Your task to perform on an android device: Go to Maps Image 0: 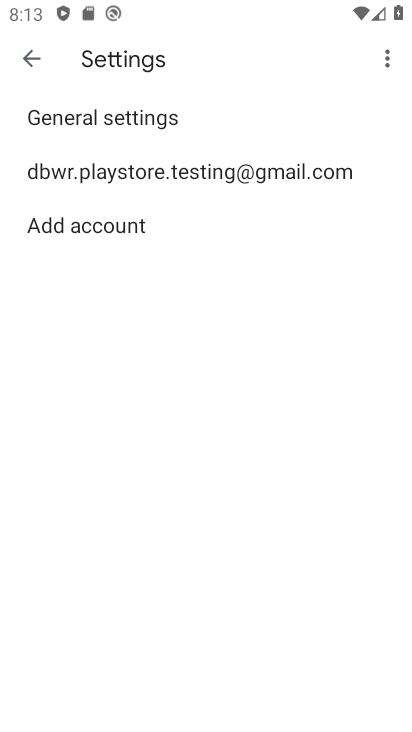
Step 0: press home button
Your task to perform on an android device: Go to Maps Image 1: 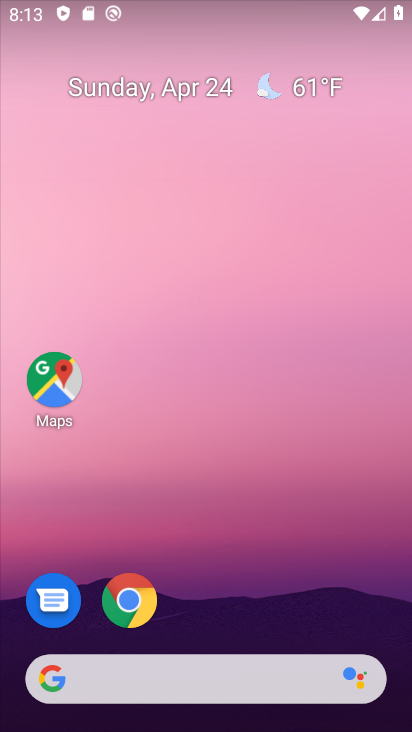
Step 1: drag from (200, 699) to (205, 291)
Your task to perform on an android device: Go to Maps Image 2: 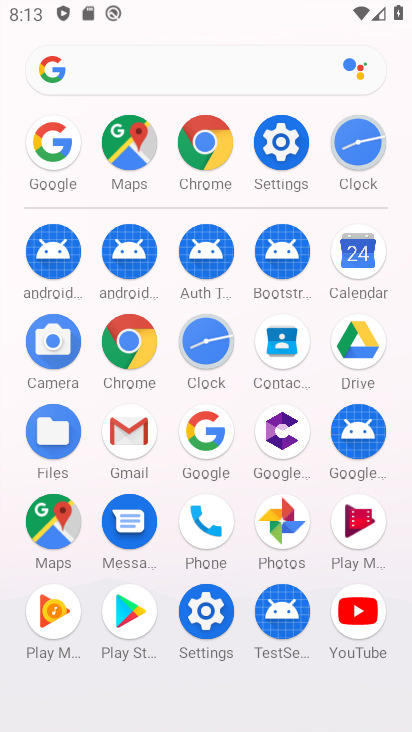
Step 2: click (54, 532)
Your task to perform on an android device: Go to Maps Image 3: 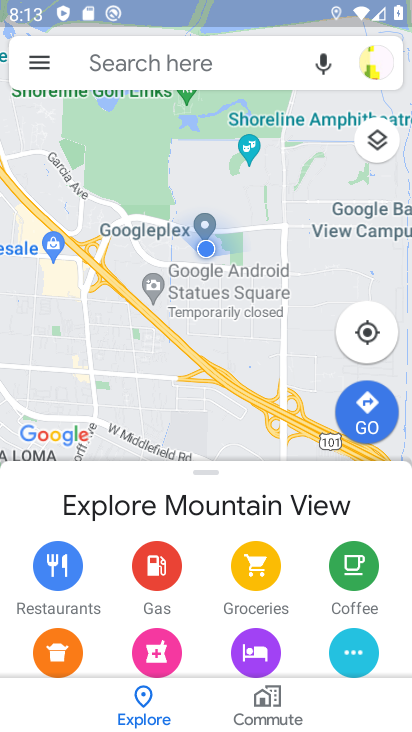
Step 3: task complete